Your task to perform on an android device: Go to calendar. Show me events next week Image 0: 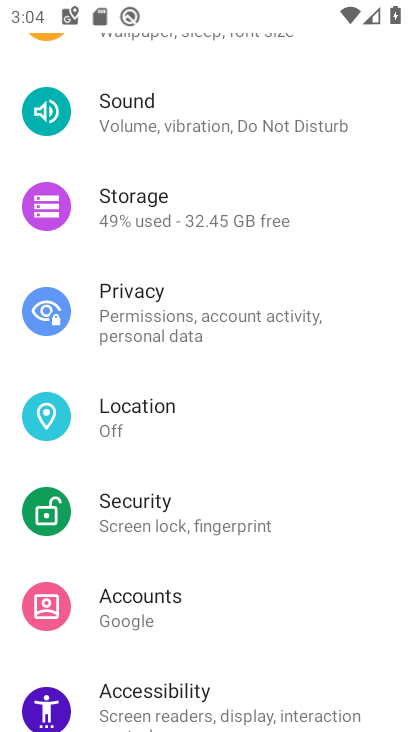
Step 0: drag from (165, 552) to (249, 225)
Your task to perform on an android device: Go to calendar. Show me events next week Image 1: 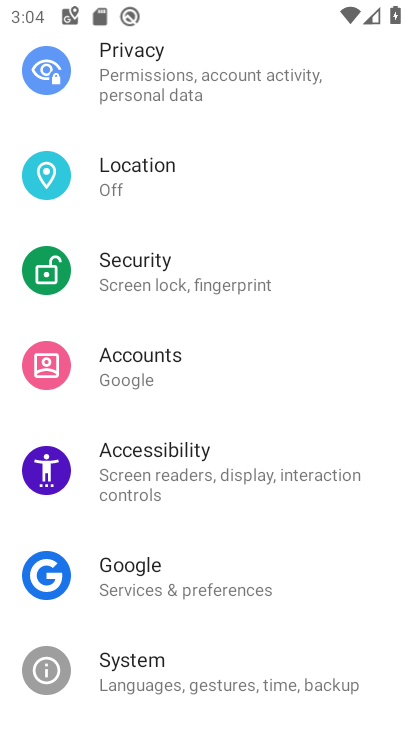
Step 1: press home button
Your task to perform on an android device: Go to calendar. Show me events next week Image 2: 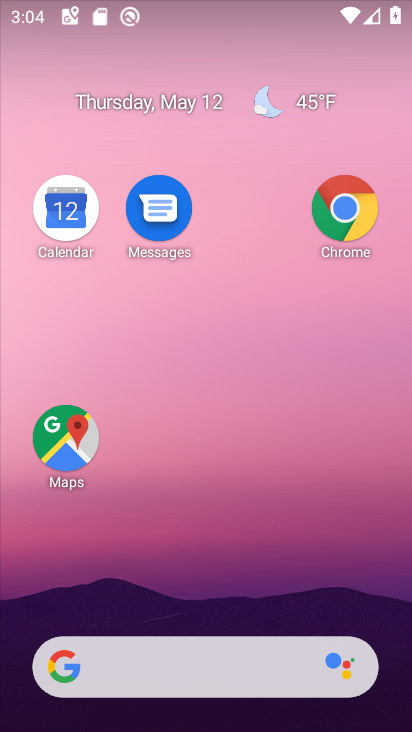
Step 2: drag from (148, 621) to (203, 134)
Your task to perform on an android device: Go to calendar. Show me events next week Image 3: 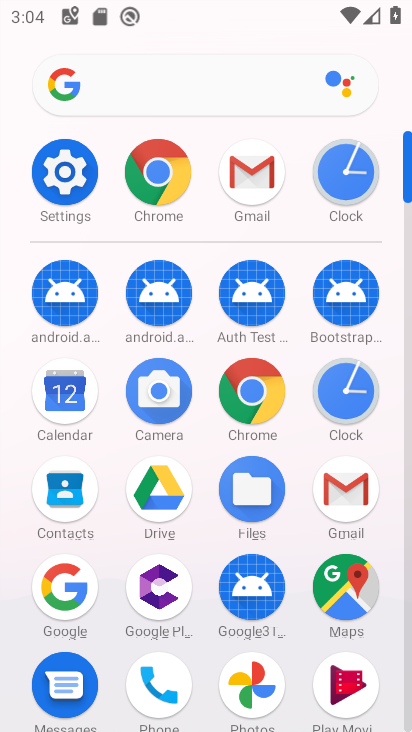
Step 3: click (85, 394)
Your task to perform on an android device: Go to calendar. Show me events next week Image 4: 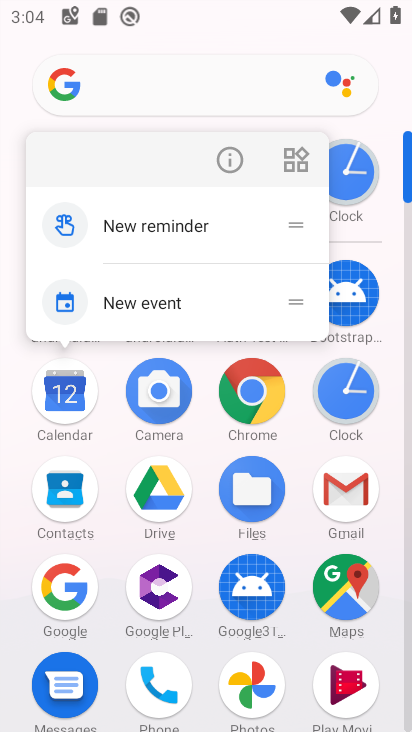
Step 4: click (233, 157)
Your task to perform on an android device: Go to calendar. Show me events next week Image 5: 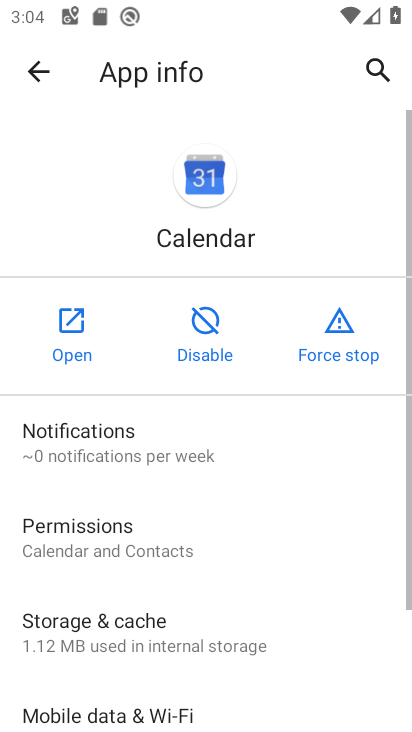
Step 5: click (77, 355)
Your task to perform on an android device: Go to calendar. Show me events next week Image 6: 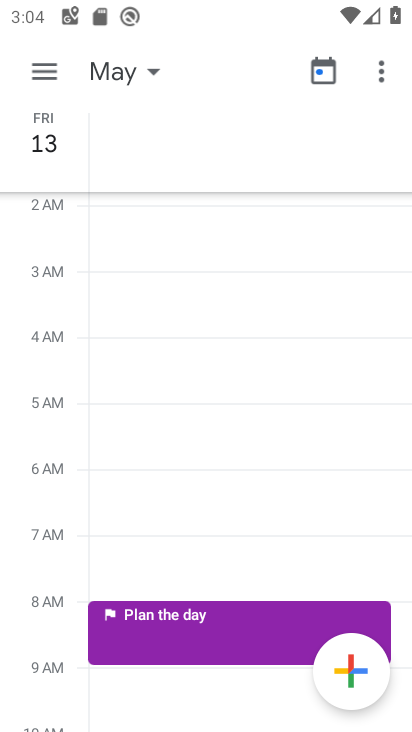
Step 6: click (122, 38)
Your task to perform on an android device: Go to calendar. Show me events next week Image 7: 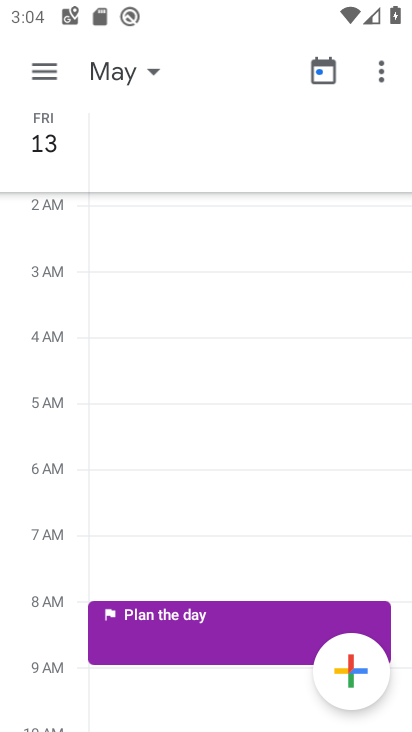
Step 7: click (135, 63)
Your task to perform on an android device: Go to calendar. Show me events next week Image 8: 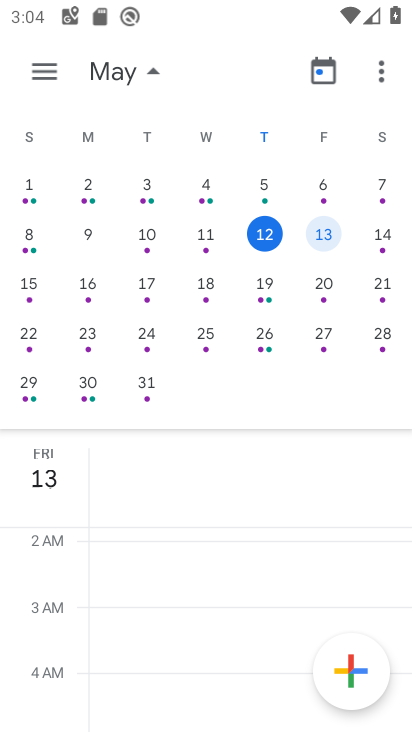
Step 8: click (204, 290)
Your task to perform on an android device: Go to calendar. Show me events next week Image 9: 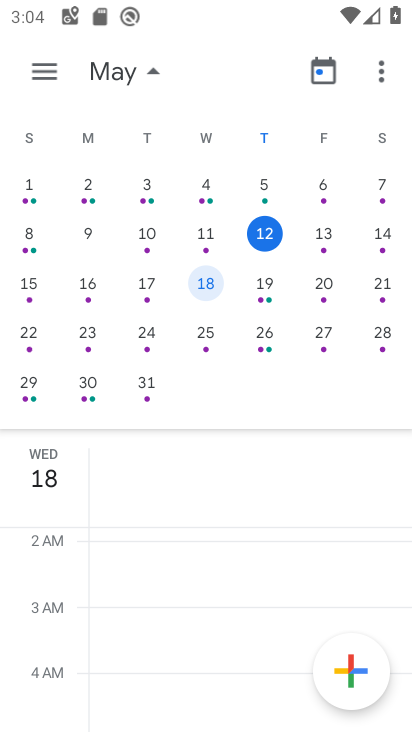
Step 9: task complete